Your task to perform on an android device: Open Google Chrome and open the bookmarks view Image 0: 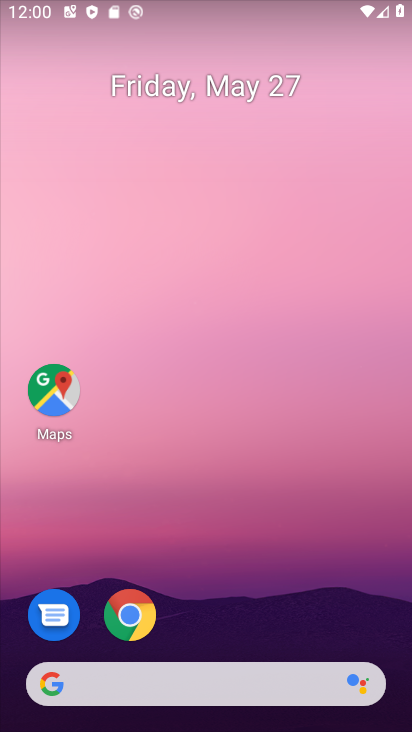
Step 0: drag from (367, 520) to (358, 49)
Your task to perform on an android device: Open Google Chrome and open the bookmarks view Image 1: 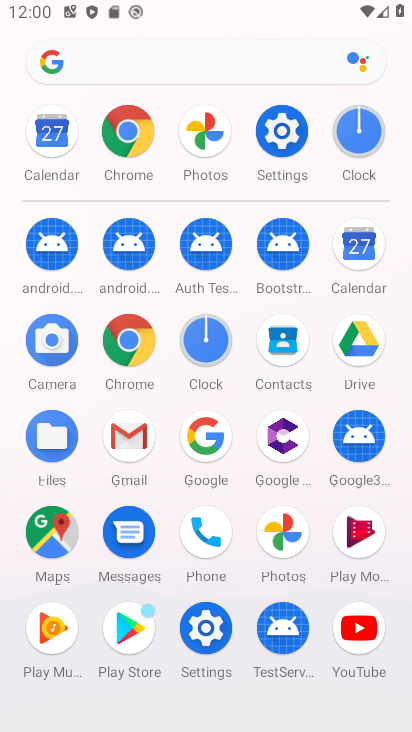
Step 1: click (131, 358)
Your task to perform on an android device: Open Google Chrome and open the bookmarks view Image 2: 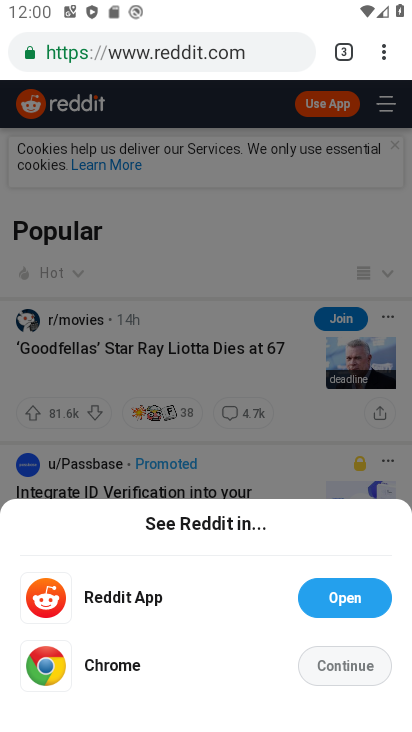
Step 2: click (398, 50)
Your task to perform on an android device: Open Google Chrome and open the bookmarks view Image 3: 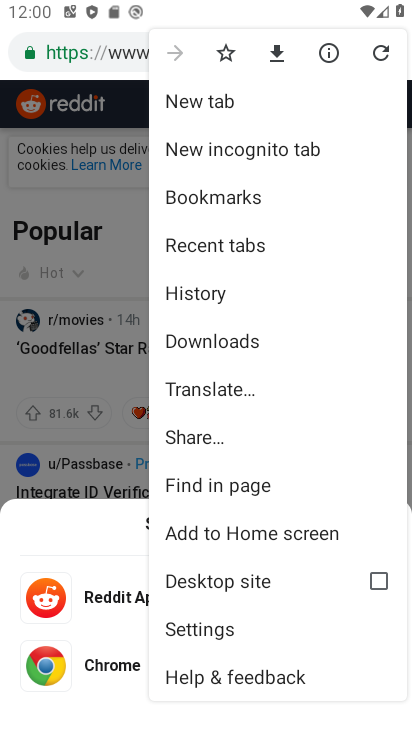
Step 3: click (231, 206)
Your task to perform on an android device: Open Google Chrome and open the bookmarks view Image 4: 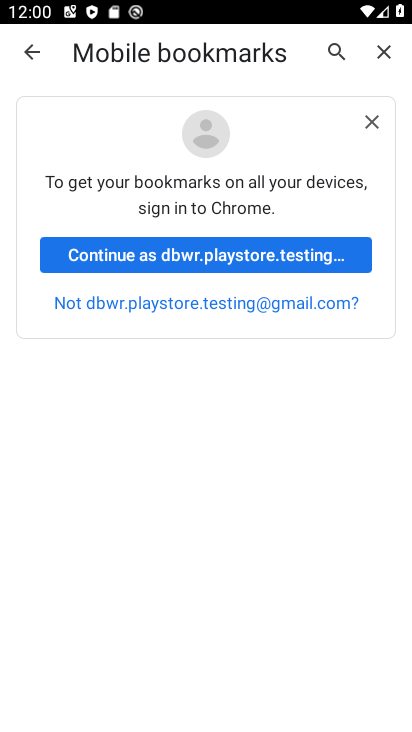
Step 4: task complete